Your task to perform on an android device: turn on sleep mode Image 0: 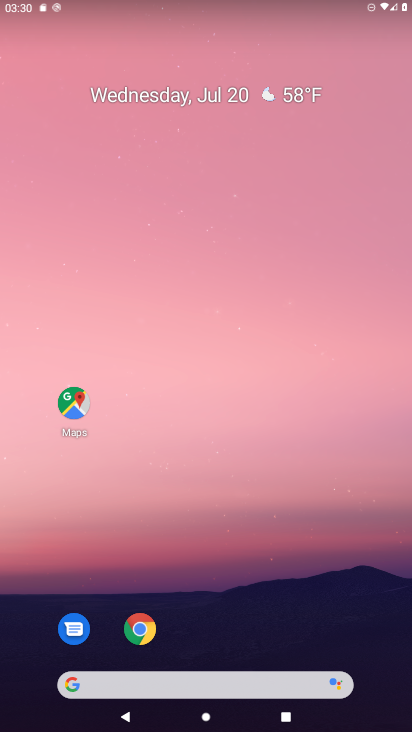
Step 0: drag from (271, 617) to (271, 101)
Your task to perform on an android device: turn on sleep mode Image 1: 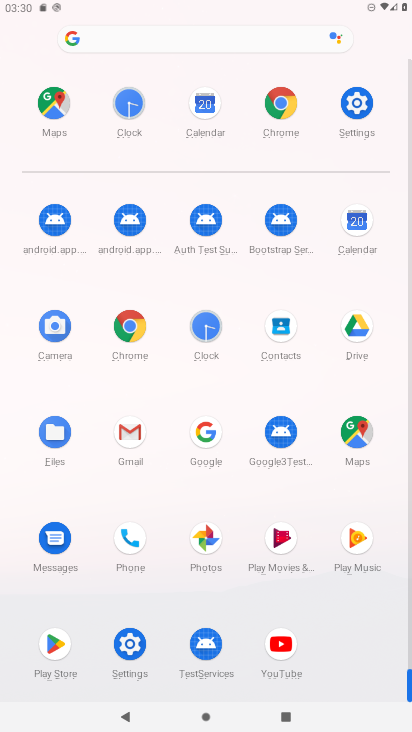
Step 1: click (140, 641)
Your task to perform on an android device: turn on sleep mode Image 2: 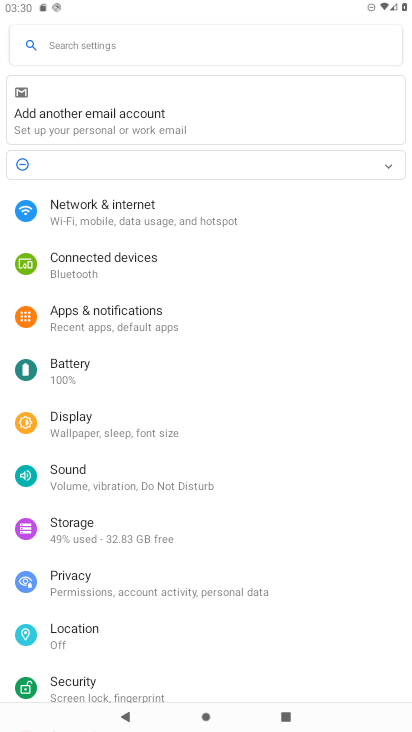
Step 2: click (114, 321)
Your task to perform on an android device: turn on sleep mode Image 3: 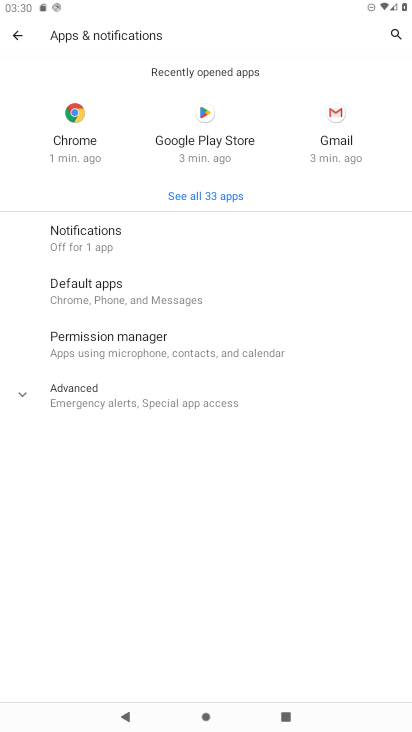
Step 3: click (21, 33)
Your task to perform on an android device: turn on sleep mode Image 4: 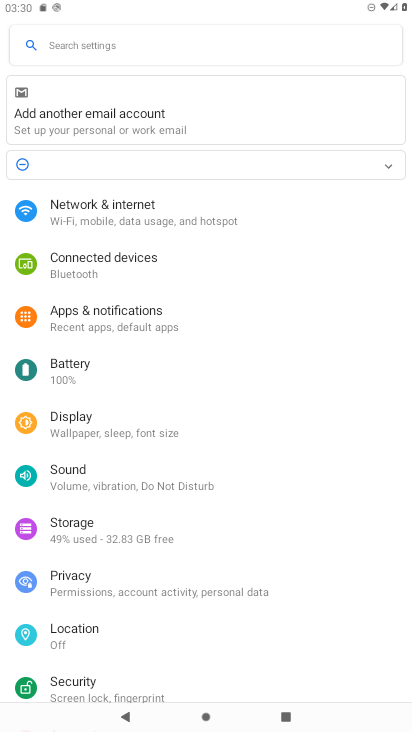
Step 4: task complete